Your task to perform on an android device: change notification settings in the gmail app Image 0: 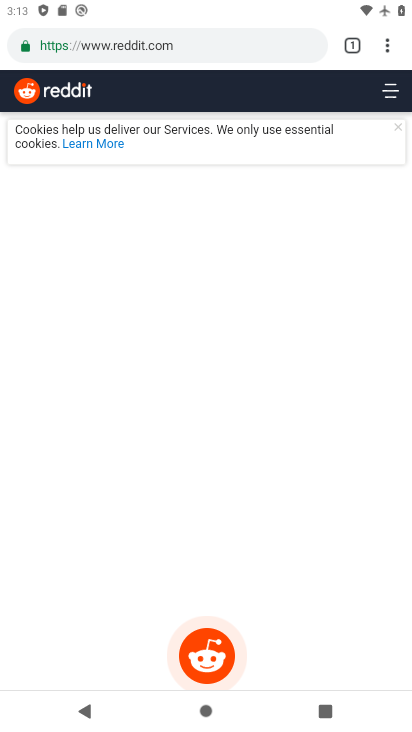
Step 0: press home button
Your task to perform on an android device: change notification settings in the gmail app Image 1: 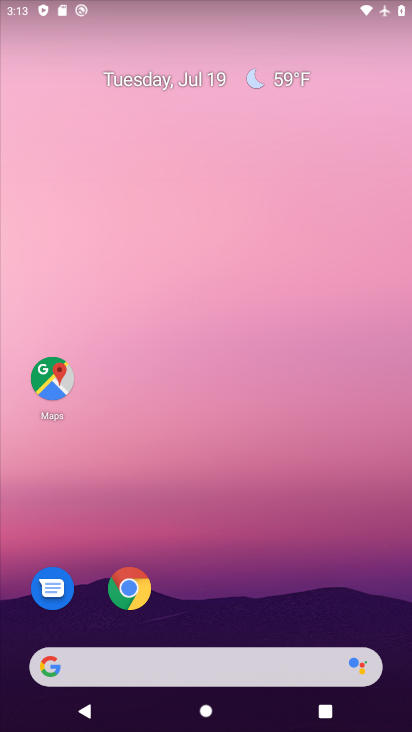
Step 1: drag from (264, 516) to (293, 22)
Your task to perform on an android device: change notification settings in the gmail app Image 2: 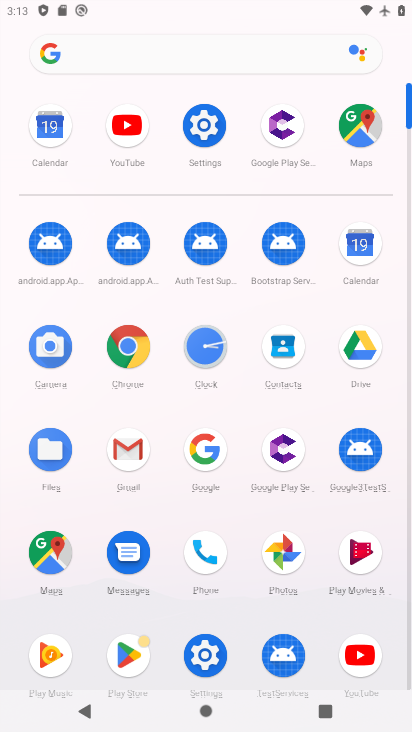
Step 2: click (122, 446)
Your task to perform on an android device: change notification settings in the gmail app Image 3: 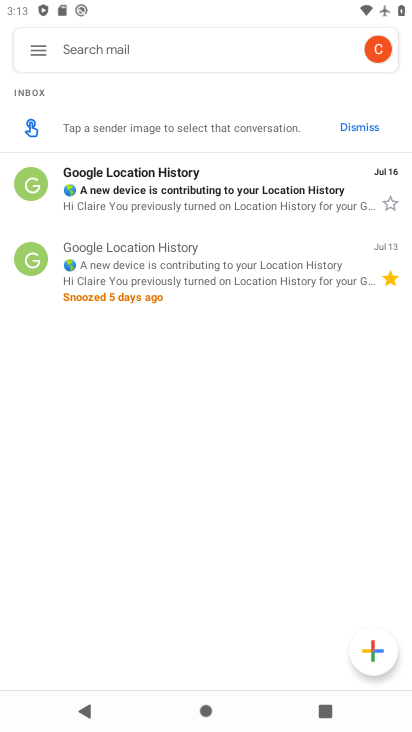
Step 3: click (35, 48)
Your task to perform on an android device: change notification settings in the gmail app Image 4: 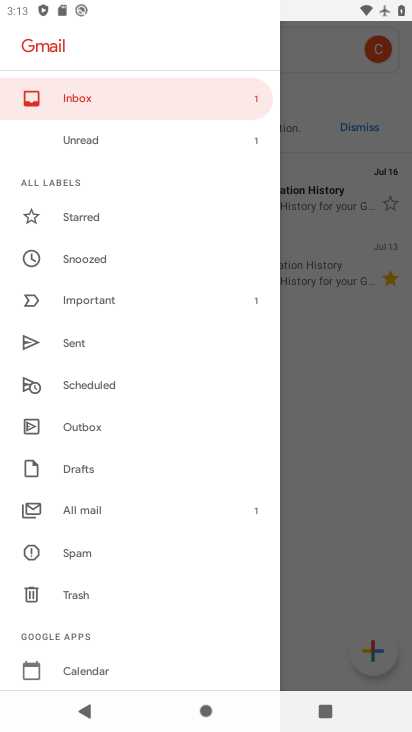
Step 4: drag from (142, 632) to (186, 238)
Your task to perform on an android device: change notification settings in the gmail app Image 5: 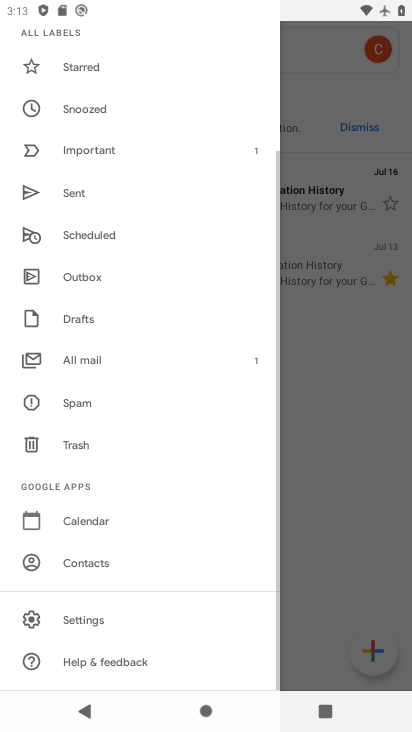
Step 5: click (85, 623)
Your task to perform on an android device: change notification settings in the gmail app Image 6: 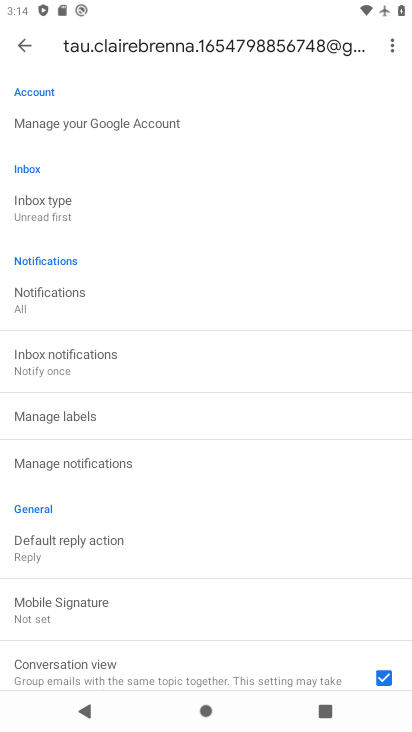
Step 6: click (59, 460)
Your task to perform on an android device: change notification settings in the gmail app Image 7: 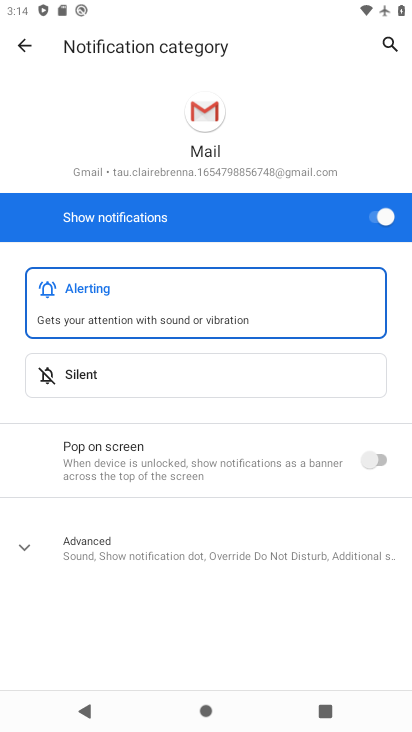
Step 7: click (383, 217)
Your task to perform on an android device: change notification settings in the gmail app Image 8: 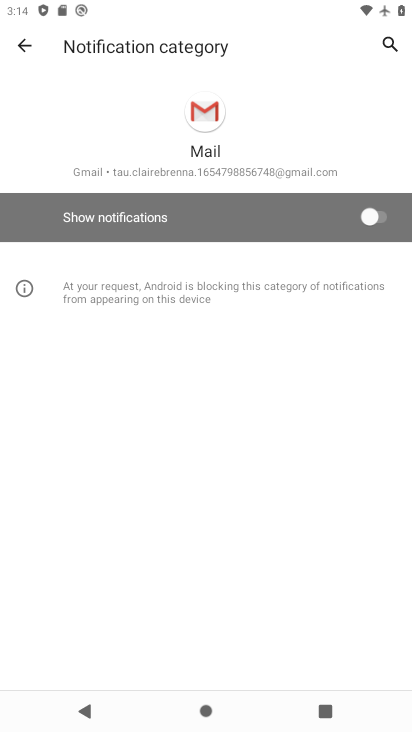
Step 8: task complete